Your task to perform on an android device: Turn on the flashlight Image 0: 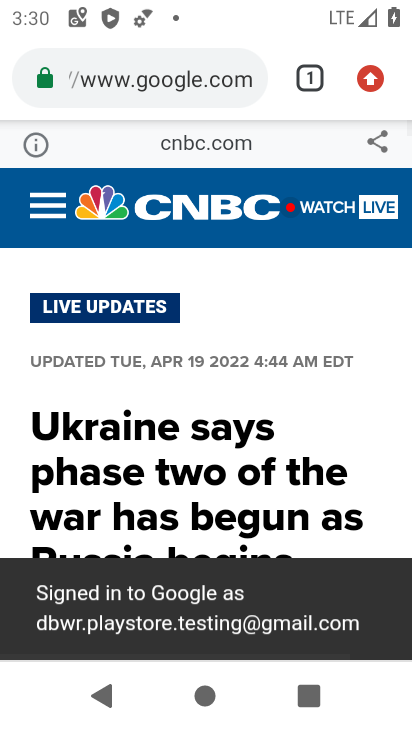
Step 0: press home button
Your task to perform on an android device: Turn on the flashlight Image 1: 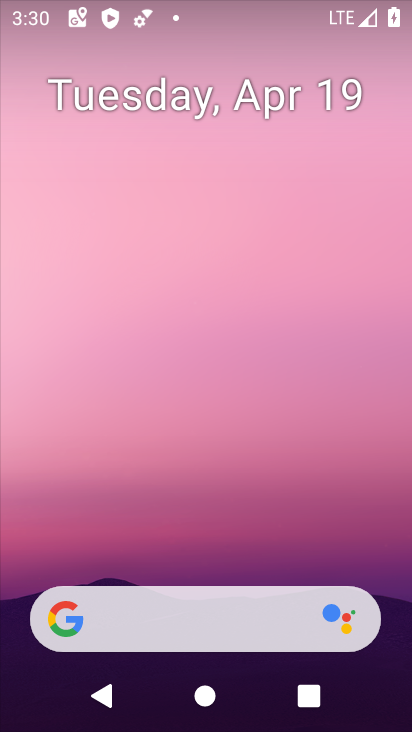
Step 1: drag from (217, 551) to (274, 96)
Your task to perform on an android device: Turn on the flashlight Image 2: 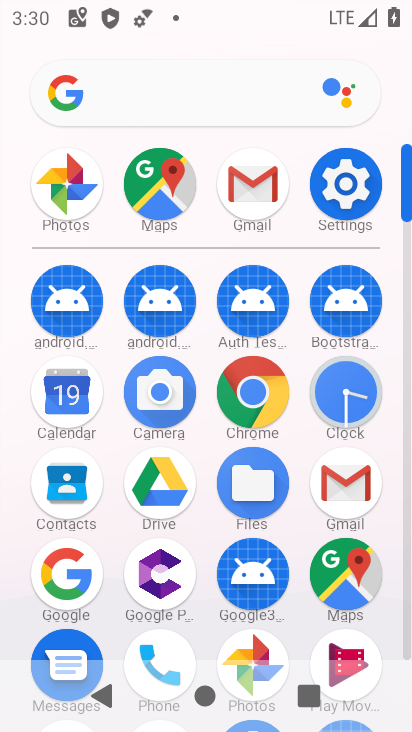
Step 2: click (348, 181)
Your task to perform on an android device: Turn on the flashlight Image 3: 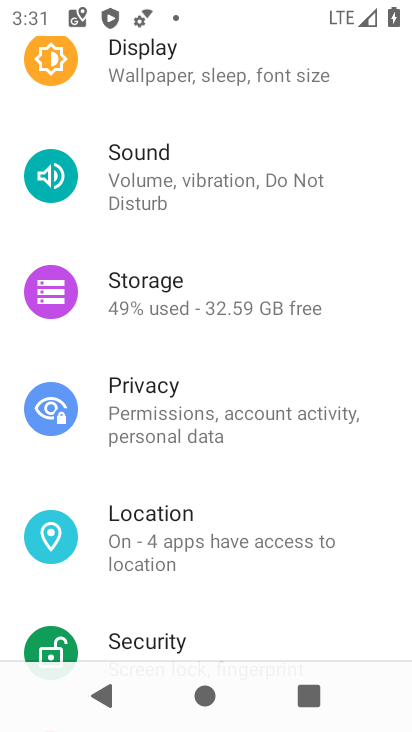
Step 3: drag from (235, 262) to (254, 359)
Your task to perform on an android device: Turn on the flashlight Image 4: 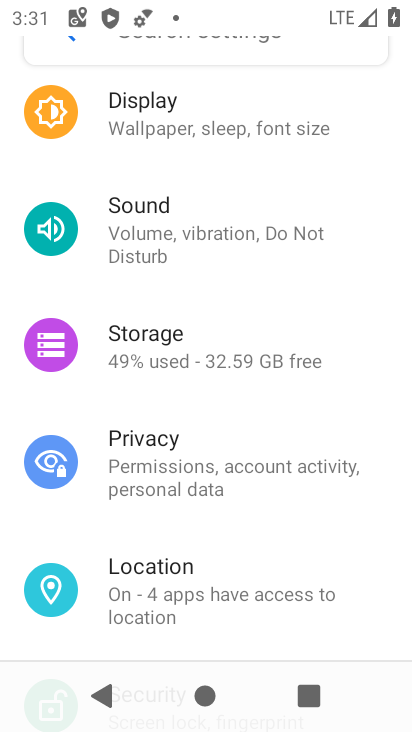
Step 4: drag from (263, 198) to (264, 355)
Your task to perform on an android device: Turn on the flashlight Image 5: 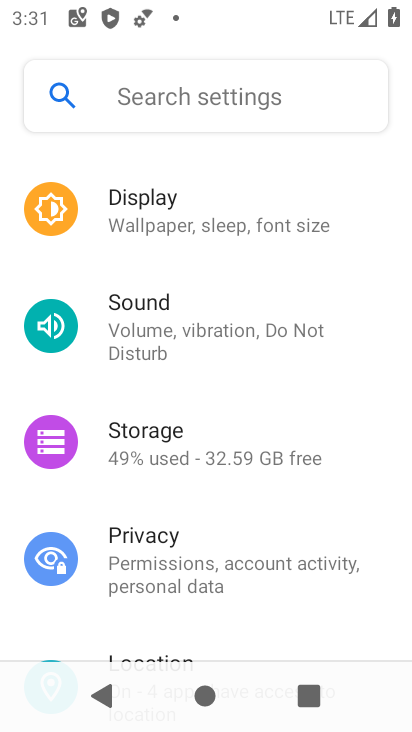
Step 5: click (267, 238)
Your task to perform on an android device: Turn on the flashlight Image 6: 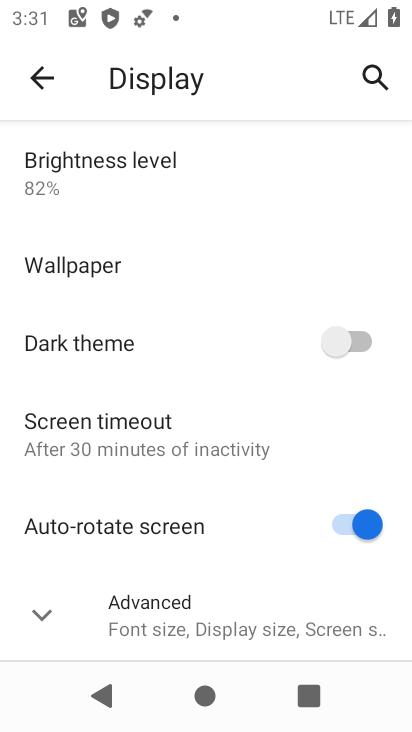
Step 6: drag from (208, 515) to (238, 365)
Your task to perform on an android device: Turn on the flashlight Image 7: 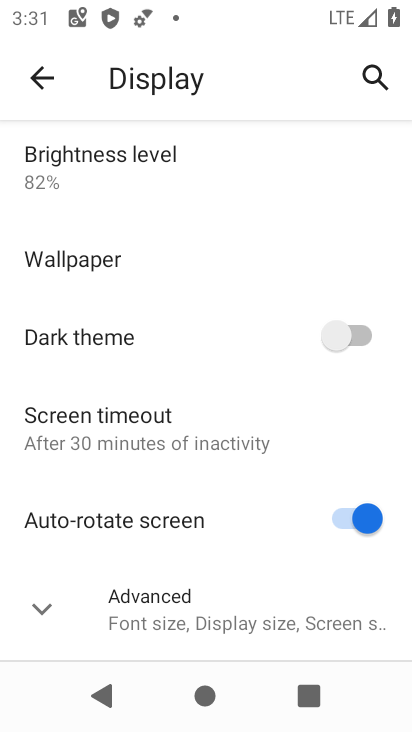
Step 7: press back button
Your task to perform on an android device: Turn on the flashlight Image 8: 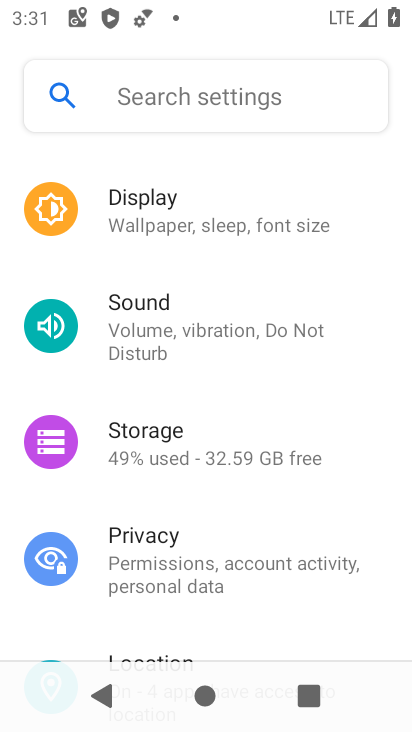
Step 8: click (209, 555)
Your task to perform on an android device: Turn on the flashlight Image 9: 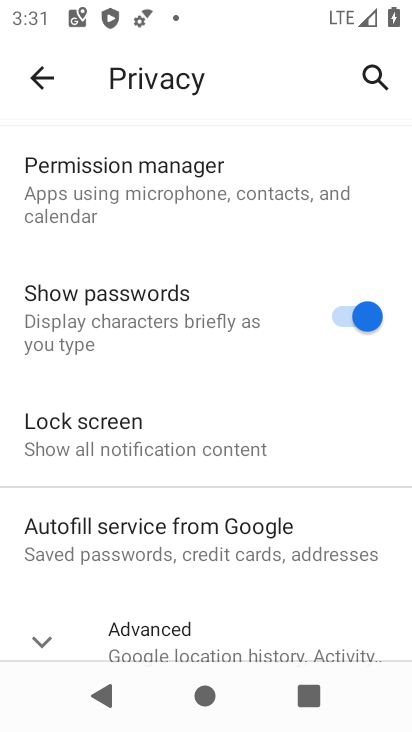
Step 9: drag from (225, 508) to (252, 328)
Your task to perform on an android device: Turn on the flashlight Image 10: 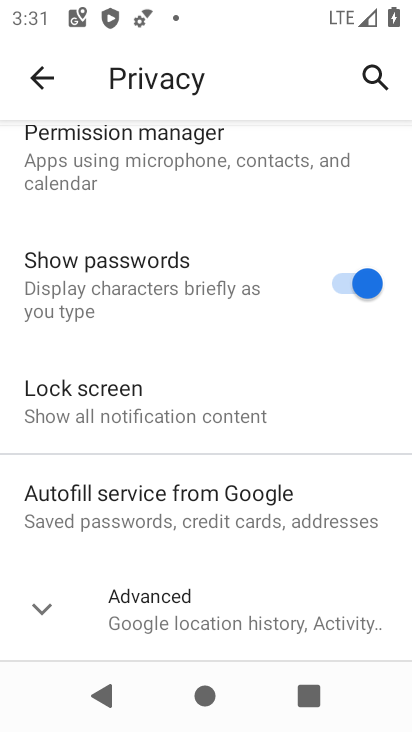
Step 10: click (156, 606)
Your task to perform on an android device: Turn on the flashlight Image 11: 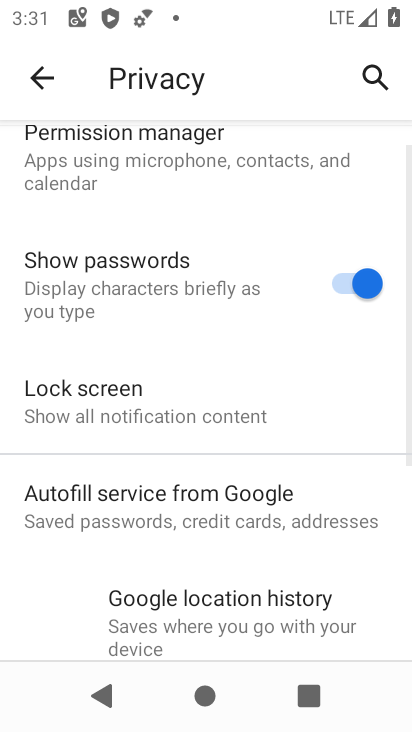
Step 11: task complete